Your task to perform on an android device: Show me the alarms in the clock app Image 0: 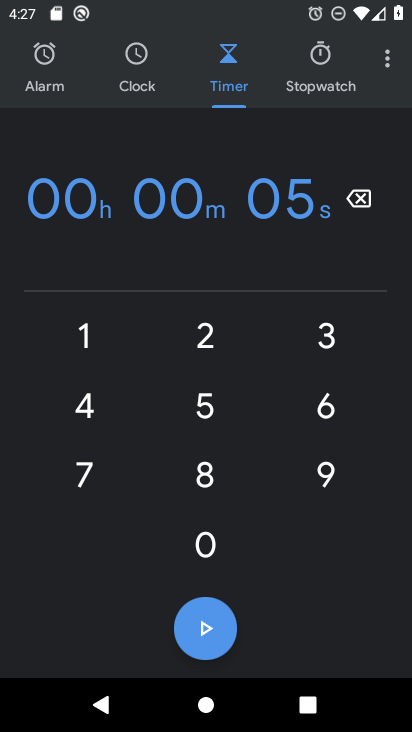
Step 0: press home button
Your task to perform on an android device: Show me the alarms in the clock app Image 1: 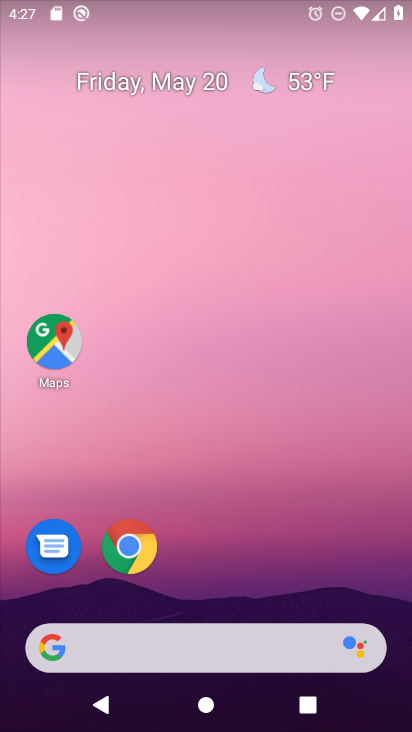
Step 1: drag from (219, 580) to (245, 158)
Your task to perform on an android device: Show me the alarms in the clock app Image 2: 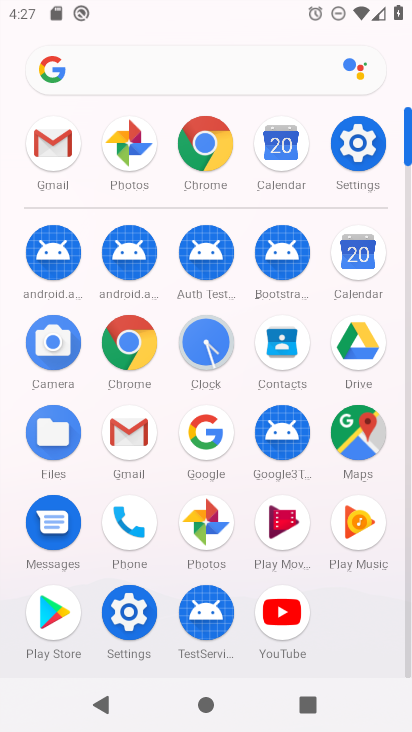
Step 2: click (222, 341)
Your task to perform on an android device: Show me the alarms in the clock app Image 3: 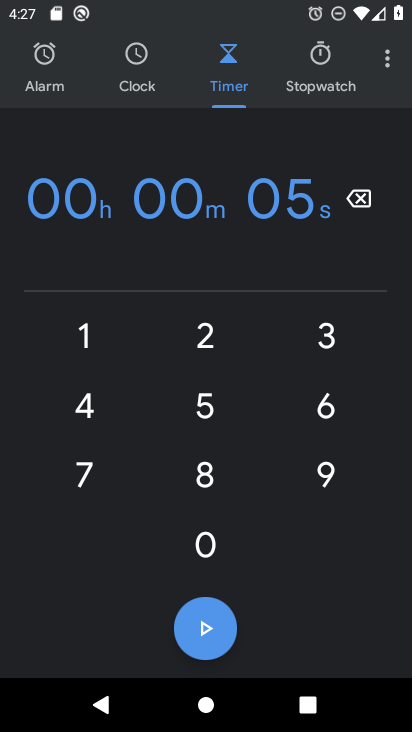
Step 3: click (34, 60)
Your task to perform on an android device: Show me the alarms in the clock app Image 4: 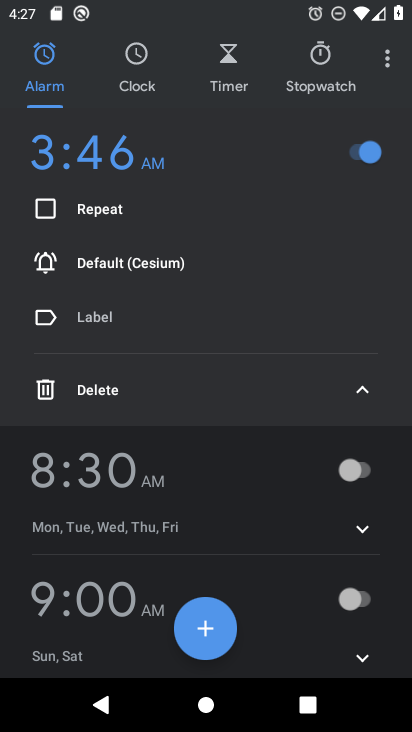
Step 4: task complete